Your task to perform on an android device: toggle data saver in the chrome app Image 0: 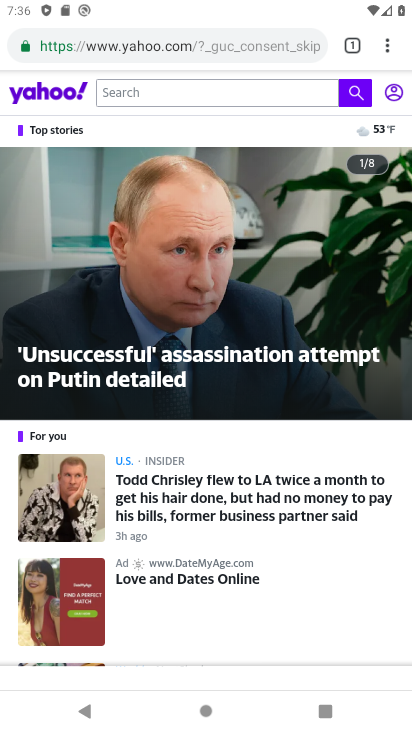
Step 0: press home button
Your task to perform on an android device: toggle data saver in the chrome app Image 1: 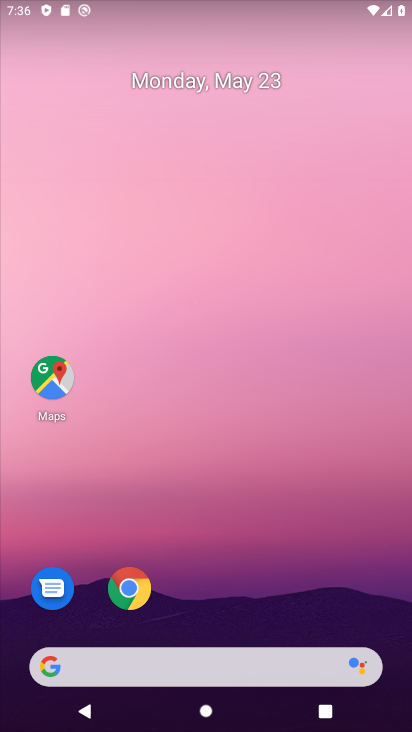
Step 1: click (137, 589)
Your task to perform on an android device: toggle data saver in the chrome app Image 2: 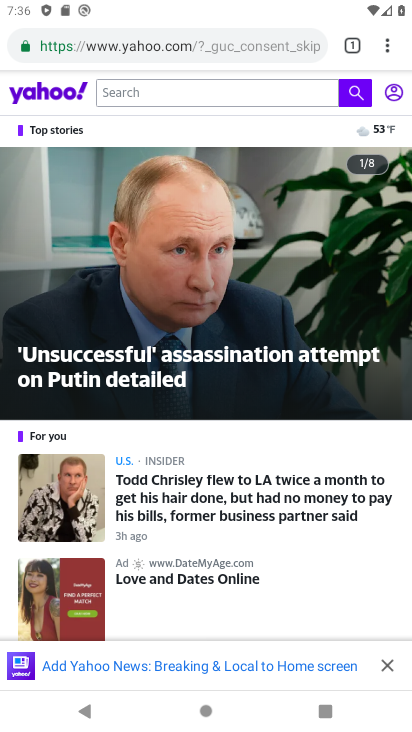
Step 2: click (384, 47)
Your task to perform on an android device: toggle data saver in the chrome app Image 3: 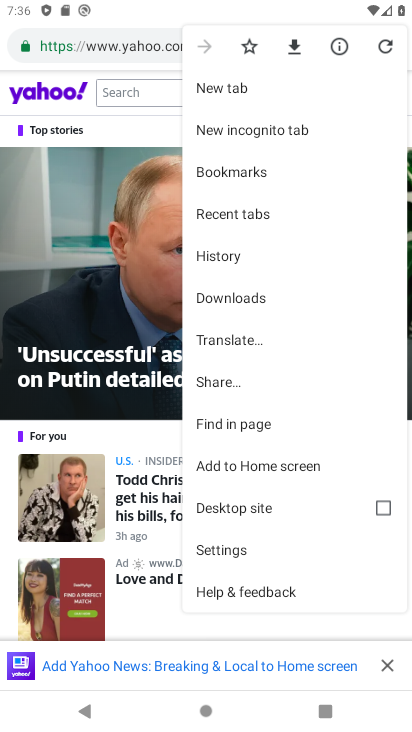
Step 3: click (197, 553)
Your task to perform on an android device: toggle data saver in the chrome app Image 4: 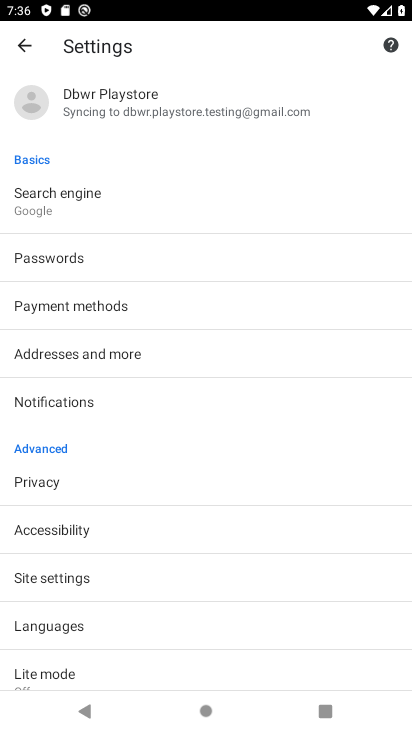
Step 4: click (39, 630)
Your task to perform on an android device: toggle data saver in the chrome app Image 5: 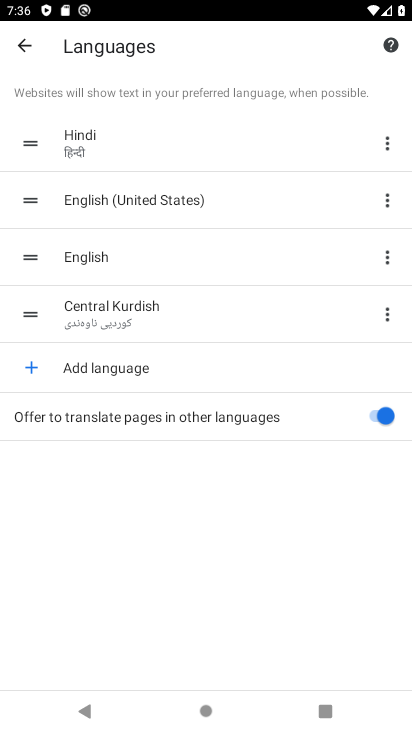
Step 5: click (372, 416)
Your task to perform on an android device: toggle data saver in the chrome app Image 6: 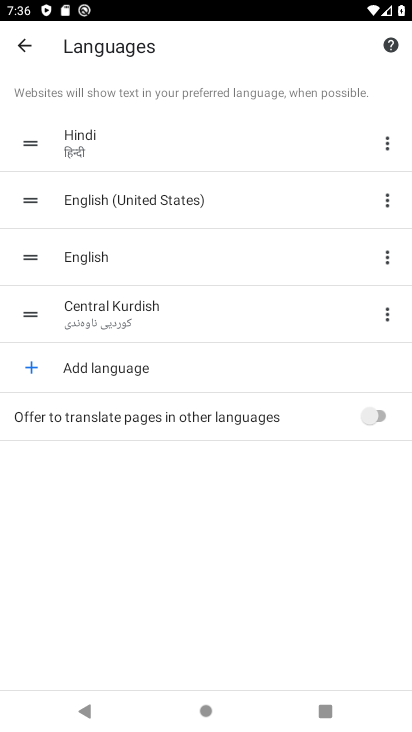
Step 6: task complete